Your task to perform on an android device: search for starred emails in the gmail app Image 0: 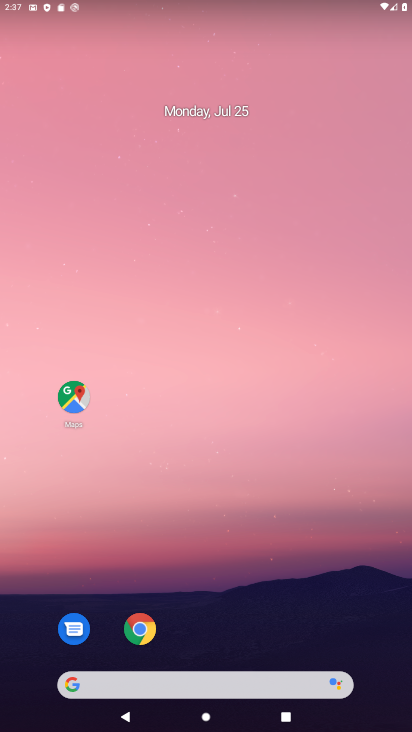
Step 0: drag from (274, 646) to (292, 4)
Your task to perform on an android device: search for starred emails in the gmail app Image 1: 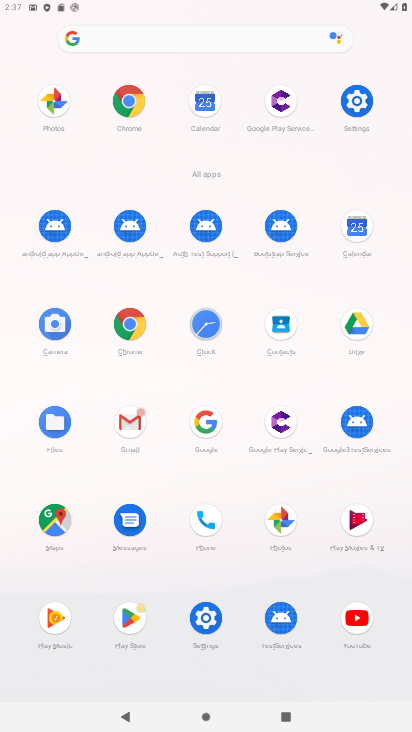
Step 1: click (134, 444)
Your task to perform on an android device: search for starred emails in the gmail app Image 2: 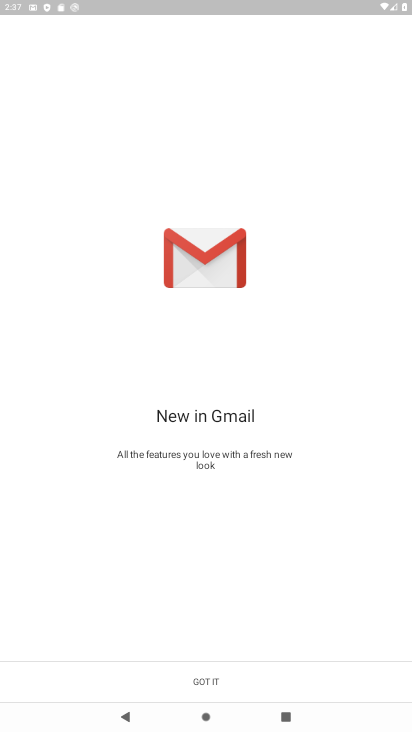
Step 2: click (201, 676)
Your task to perform on an android device: search for starred emails in the gmail app Image 3: 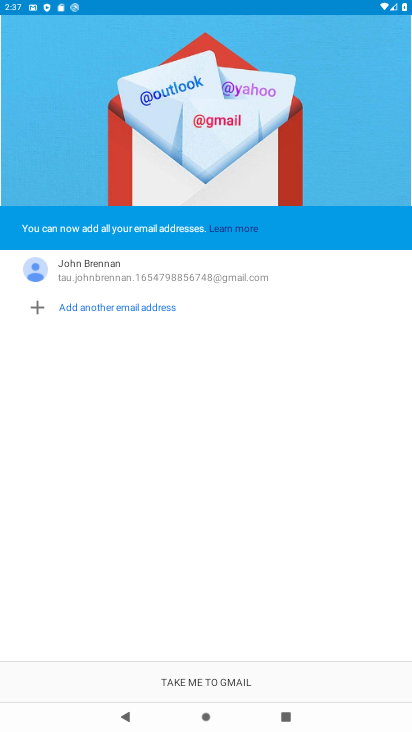
Step 3: click (193, 670)
Your task to perform on an android device: search for starred emails in the gmail app Image 4: 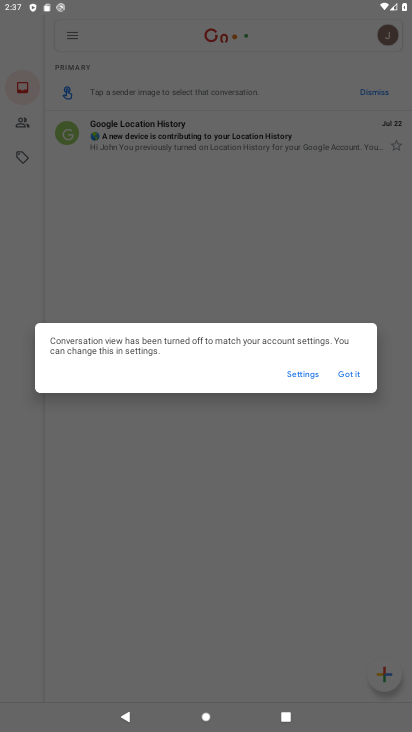
Step 4: click (353, 370)
Your task to perform on an android device: search for starred emails in the gmail app Image 5: 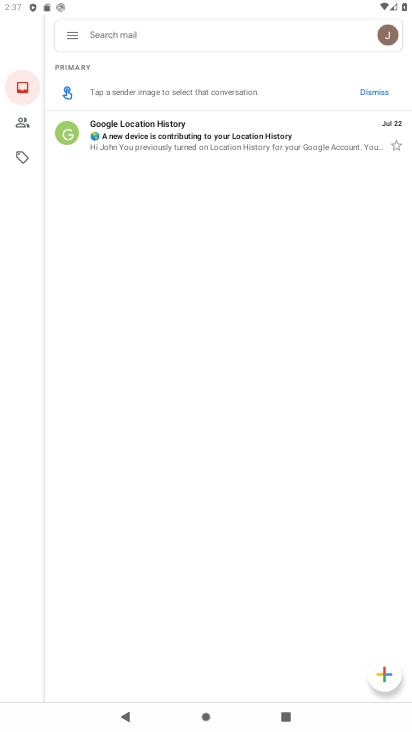
Step 5: click (71, 33)
Your task to perform on an android device: search for starred emails in the gmail app Image 6: 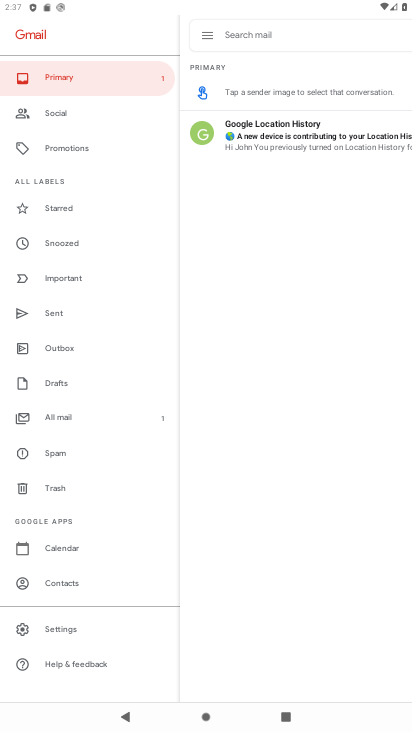
Step 6: click (52, 214)
Your task to perform on an android device: search for starred emails in the gmail app Image 7: 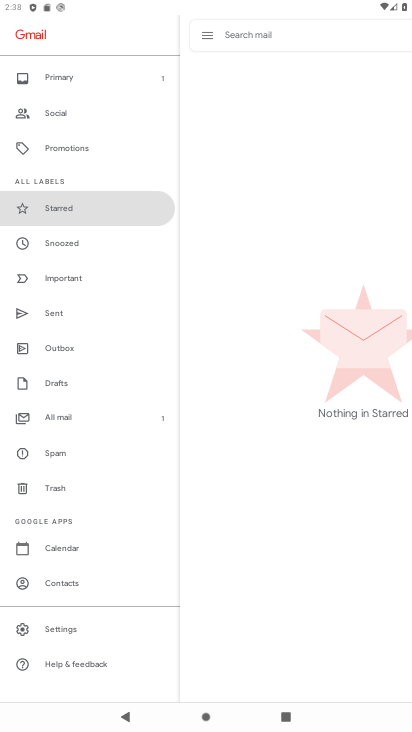
Step 7: task complete